Your task to perform on an android device: Clear all items from cart on target. Add "asus rog" to the cart on target Image 0: 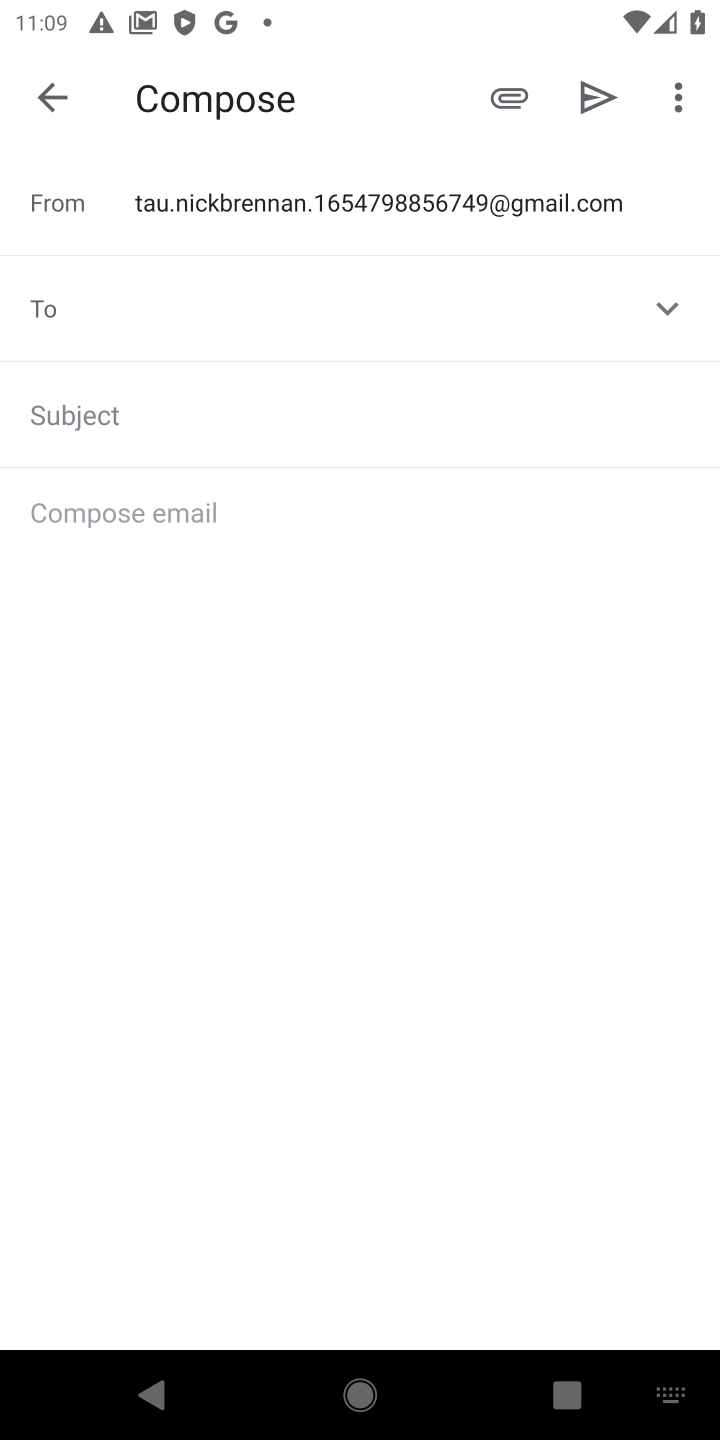
Step 0: press home button
Your task to perform on an android device: Clear all items from cart on target. Add "asus rog" to the cart on target Image 1: 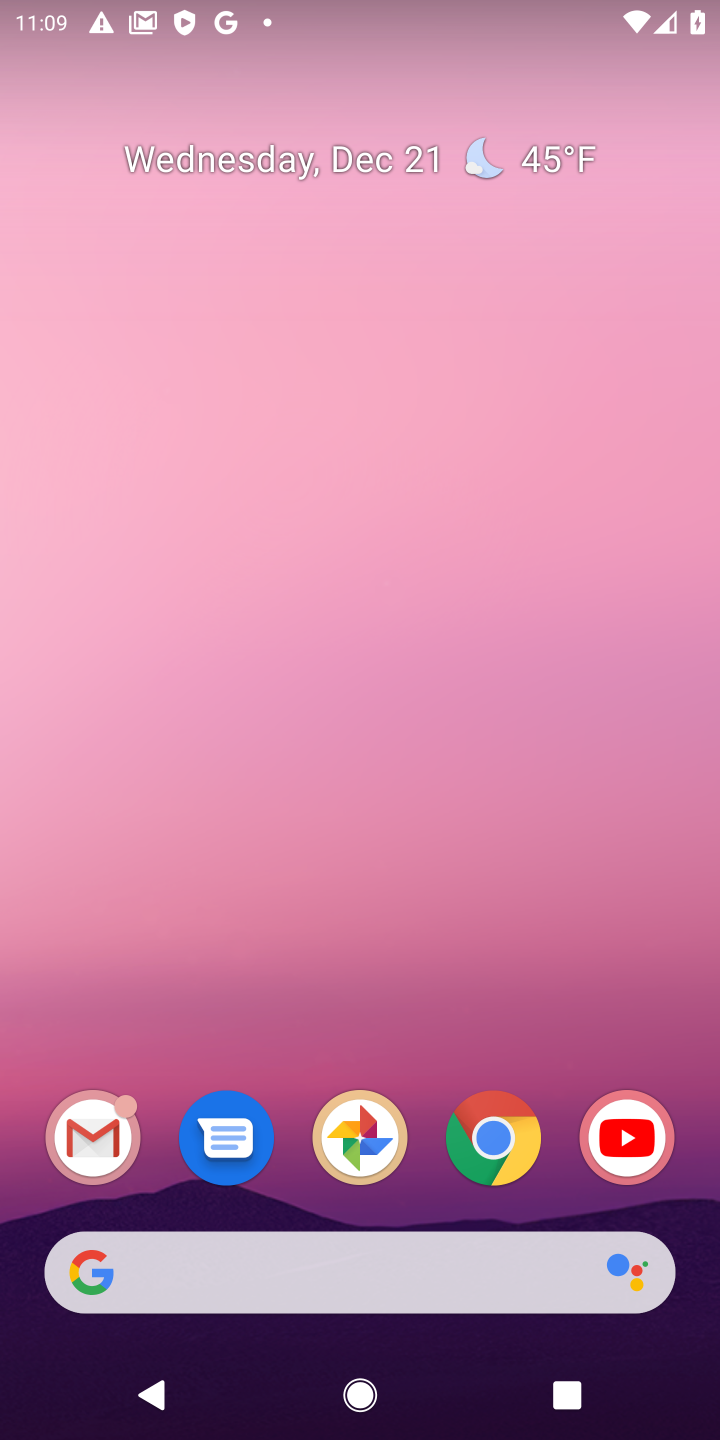
Step 1: click (500, 1153)
Your task to perform on an android device: Clear all items from cart on target. Add "asus rog" to the cart on target Image 2: 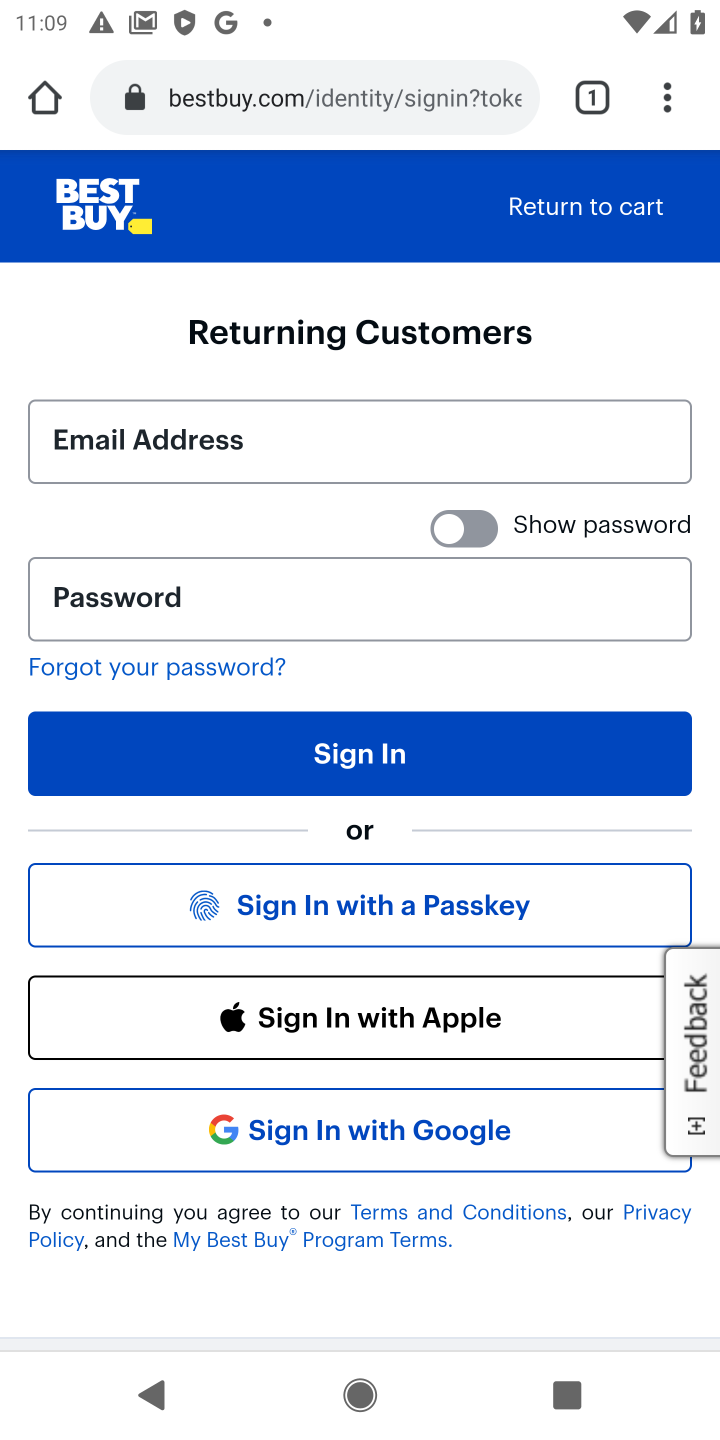
Step 2: click (305, 90)
Your task to perform on an android device: Clear all items from cart on target. Add "asus rog" to the cart on target Image 3: 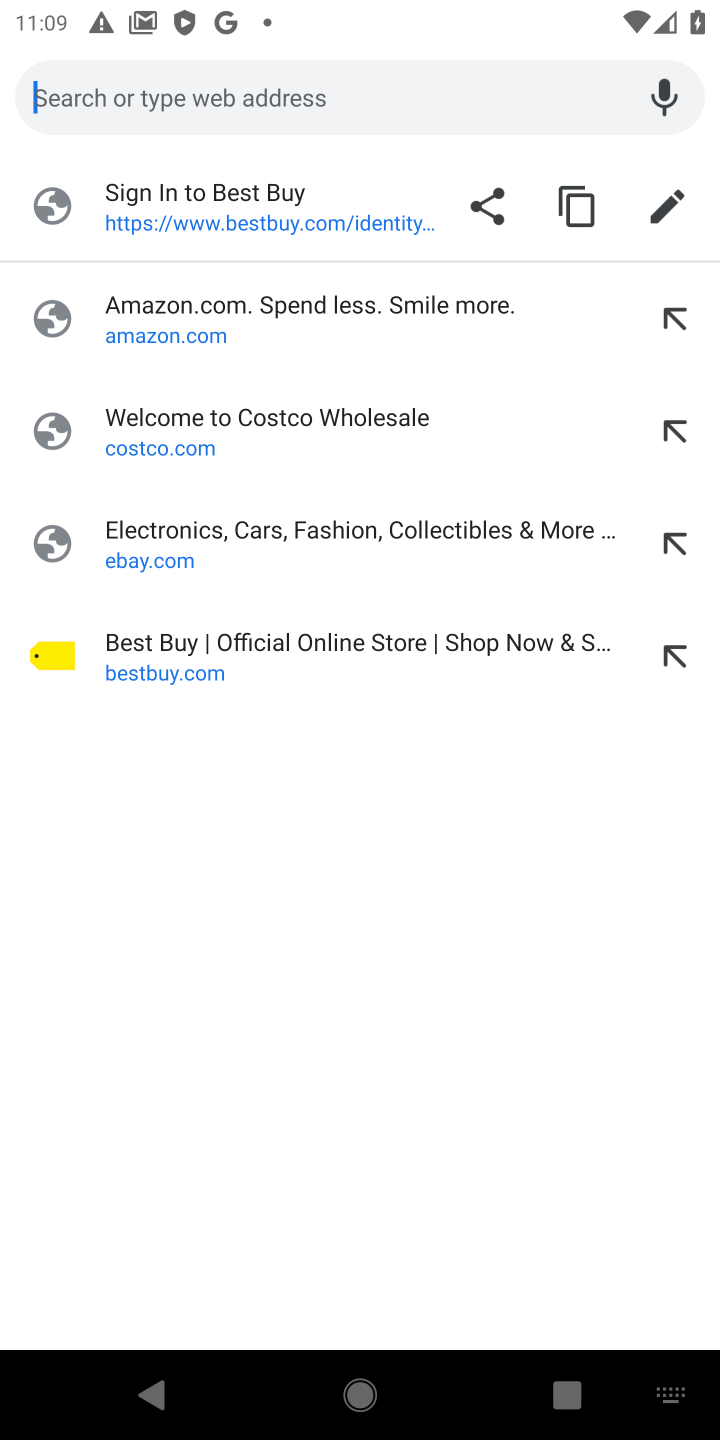
Step 3: type "target.com"
Your task to perform on an android device: Clear all items from cart on target. Add "asus rog" to the cart on target Image 4: 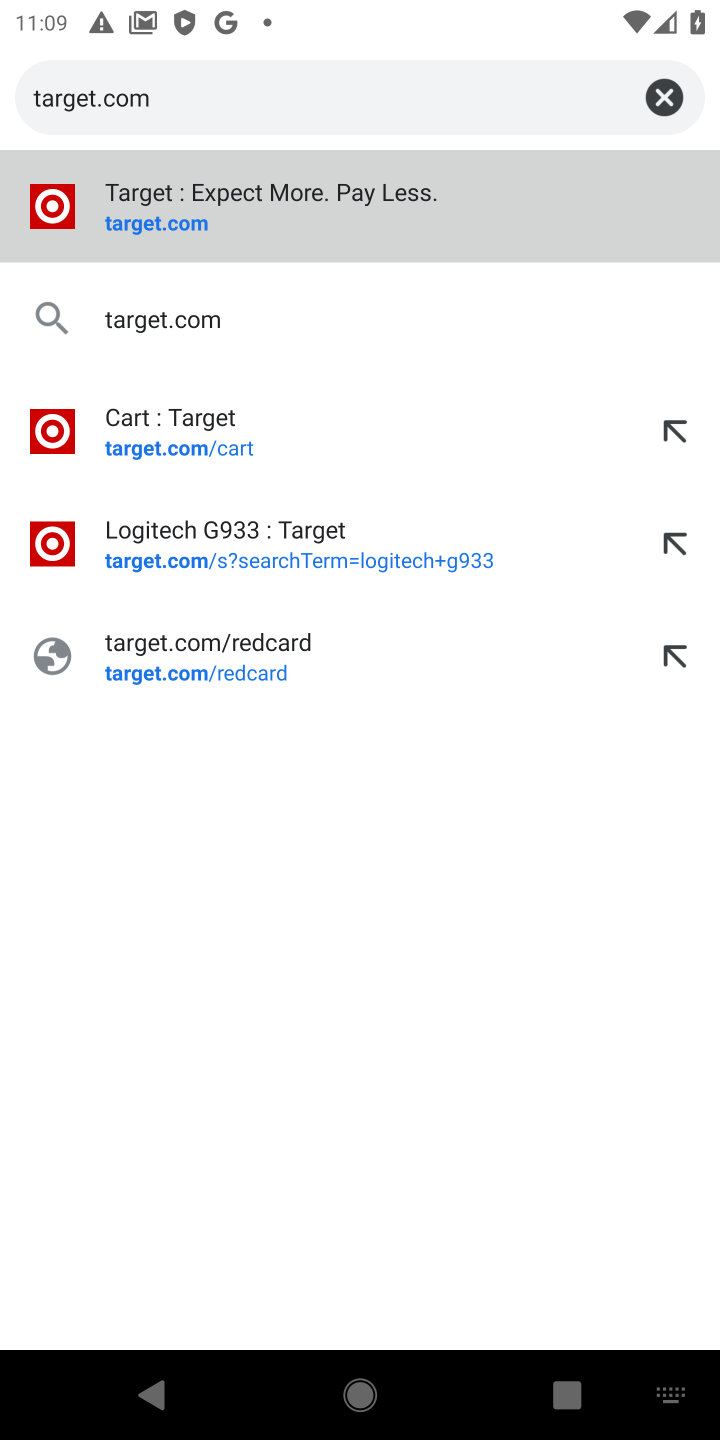
Step 4: click (131, 227)
Your task to perform on an android device: Clear all items from cart on target. Add "asus rog" to the cart on target Image 5: 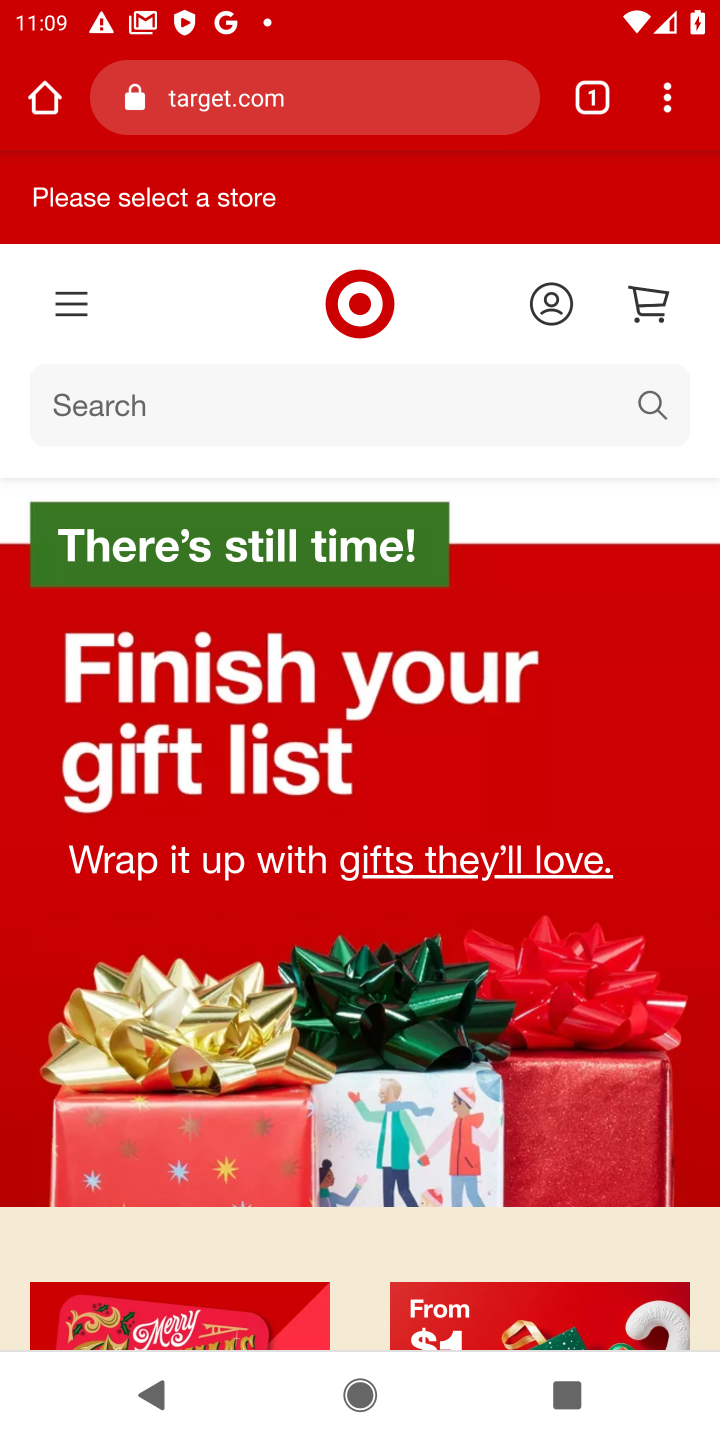
Step 5: click (651, 299)
Your task to perform on an android device: Clear all items from cart on target. Add "asus rog" to the cart on target Image 6: 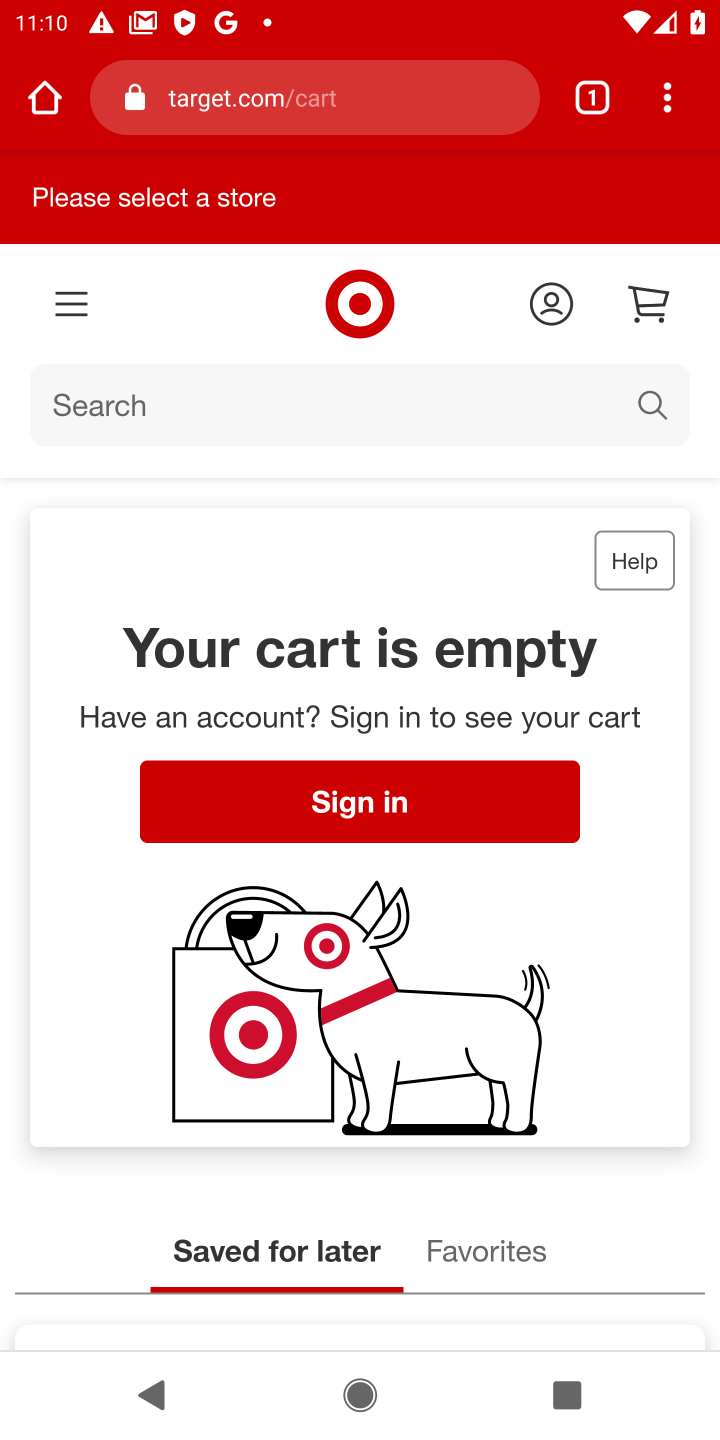
Step 6: click (62, 408)
Your task to perform on an android device: Clear all items from cart on target. Add "asus rog" to the cart on target Image 7: 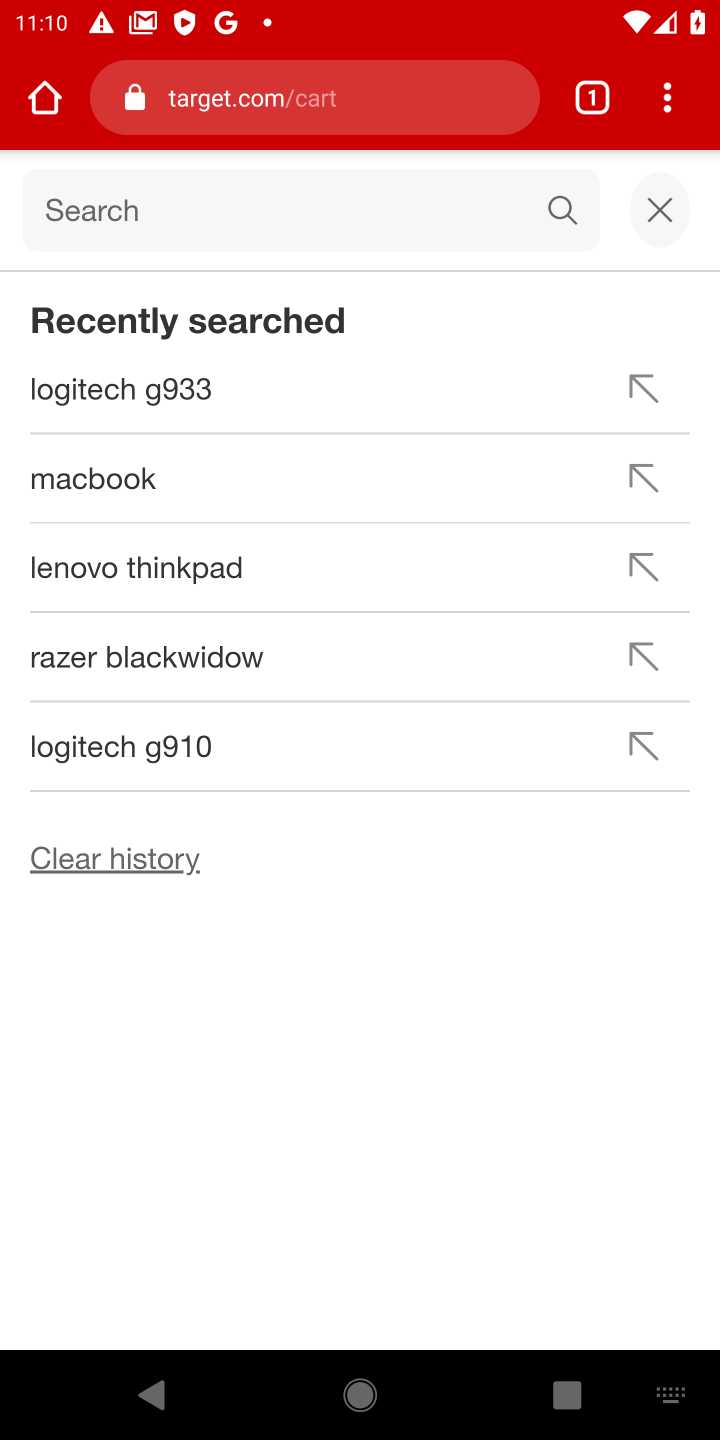
Step 7: type "asus rog"
Your task to perform on an android device: Clear all items from cart on target. Add "asus rog" to the cart on target Image 8: 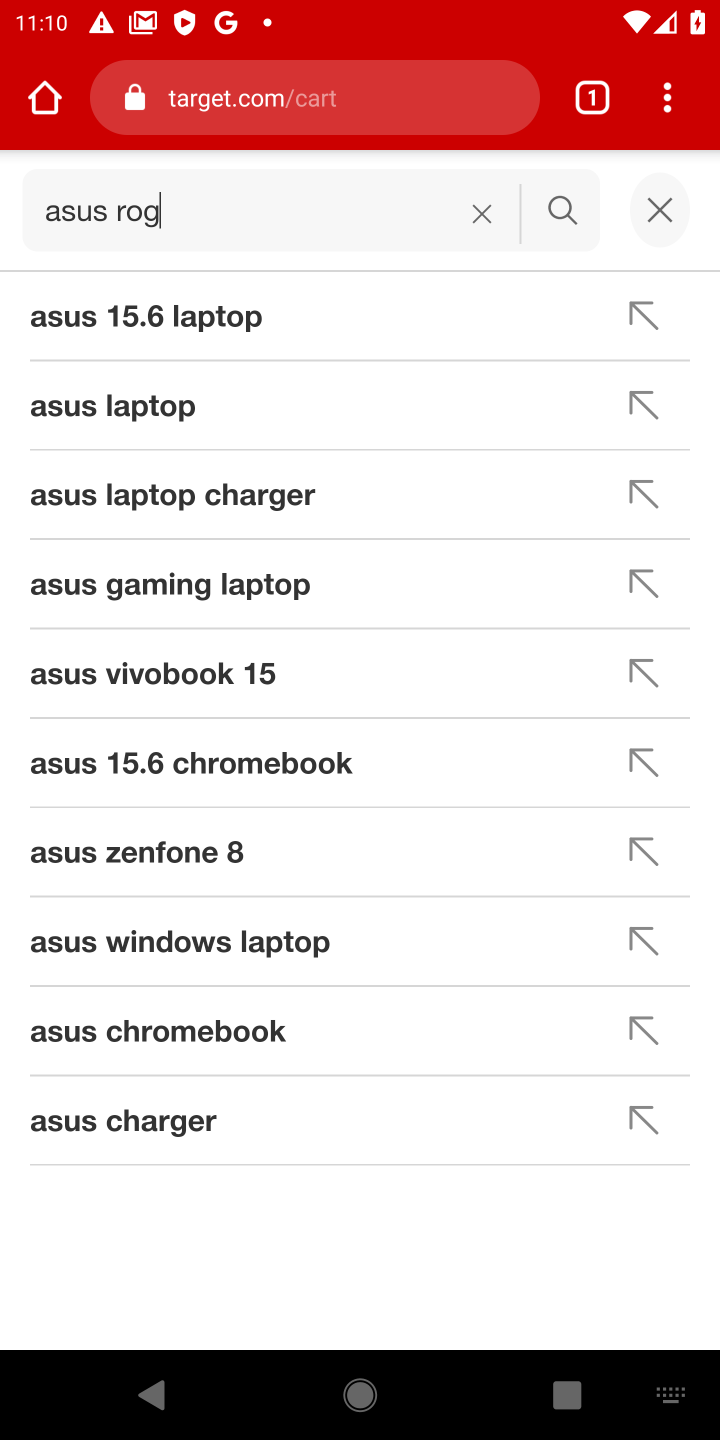
Step 8: click (576, 224)
Your task to perform on an android device: Clear all items from cart on target. Add "asus rog" to the cart on target Image 9: 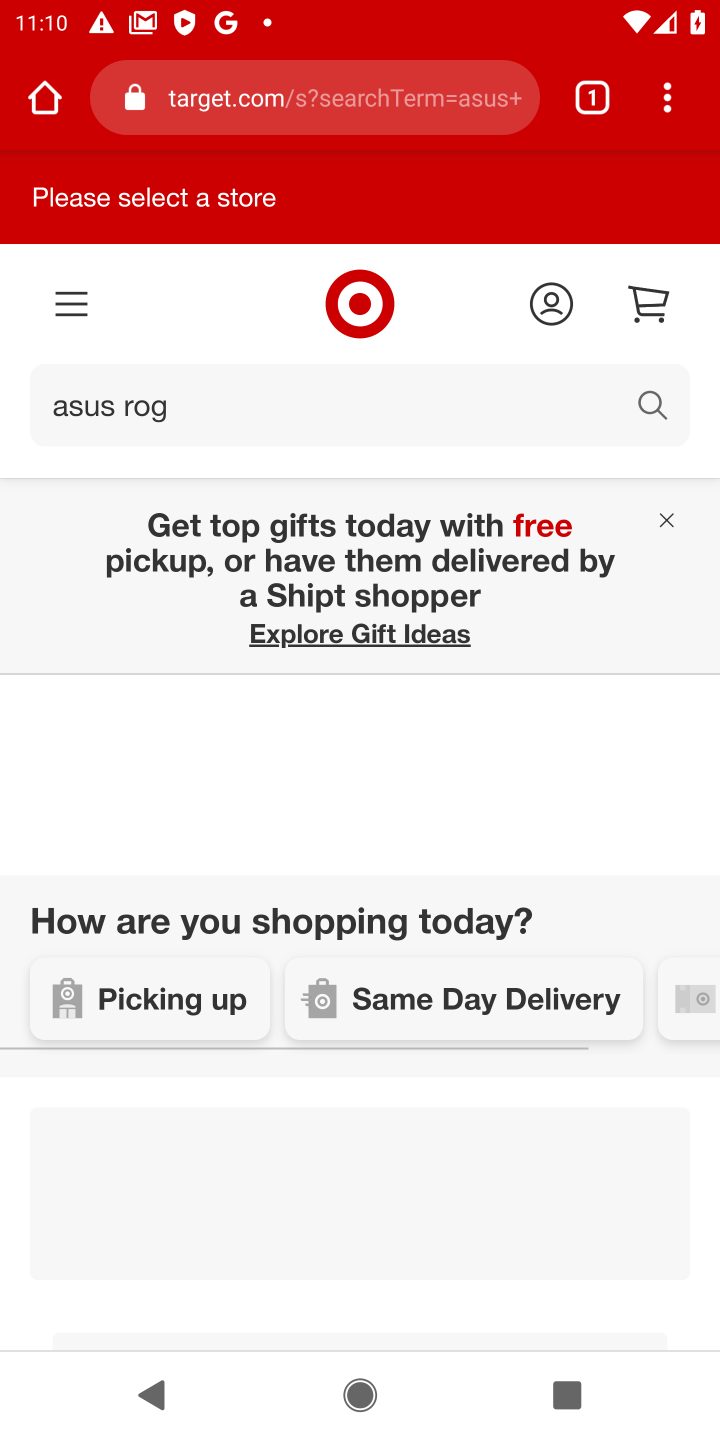
Step 9: drag from (286, 898) to (327, 352)
Your task to perform on an android device: Clear all items from cart on target. Add "asus rog" to the cart on target Image 10: 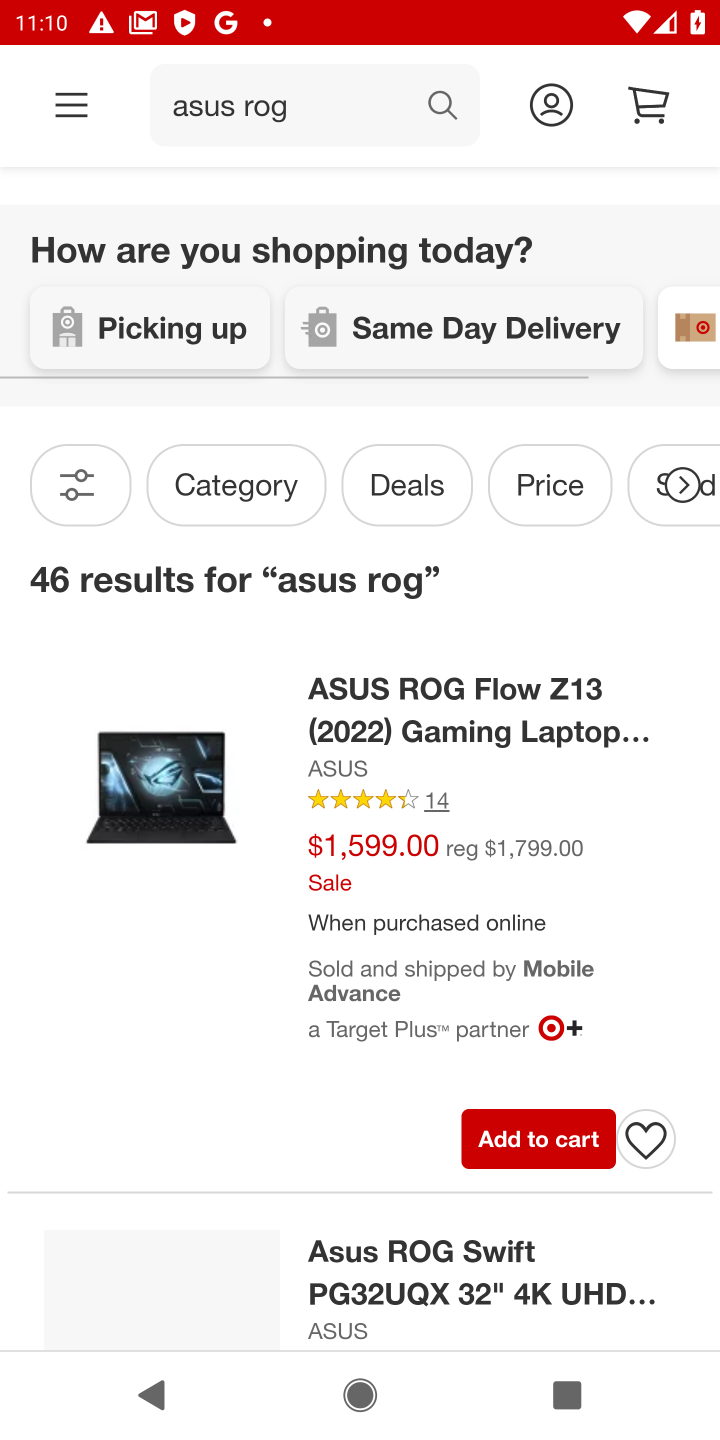
Step 10: drag from (370, 808) to (402, 543)
Your task to perform on an android device: Clear all items from cart on target. Add "asus rog" to the cart on target Image 11: 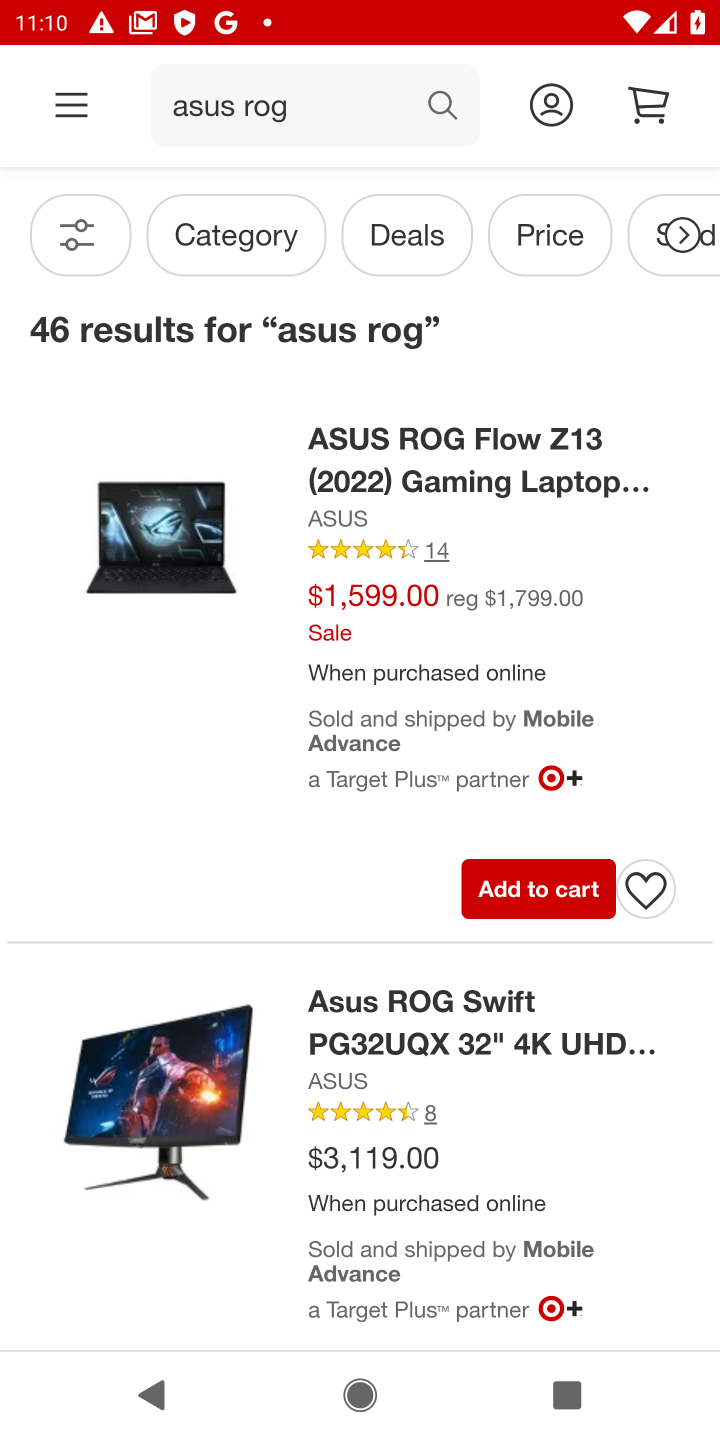
Step 11: click (565, 888)
Your task to perform on an android device: Clear all items from cart on target. Add "asus rog" to the cart on target Image 12: 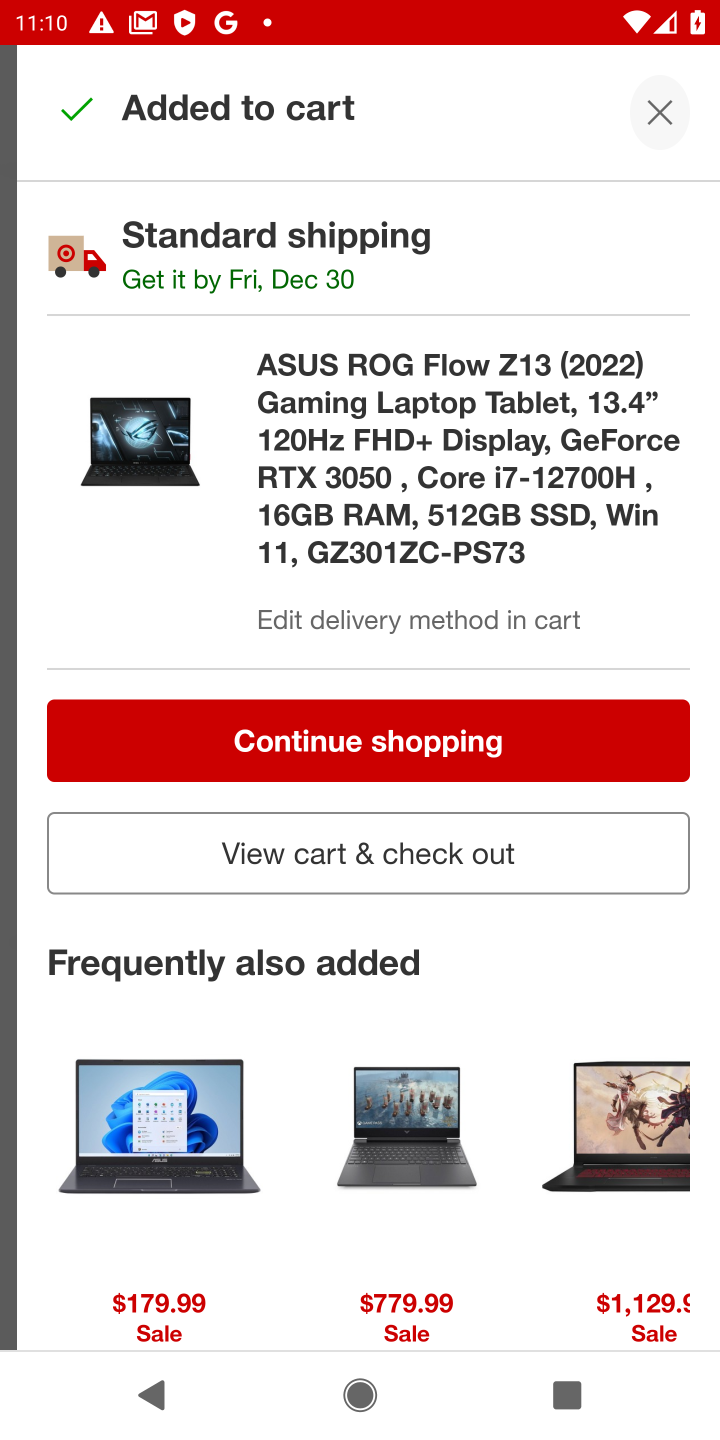
Step 12: task complete